Your task to perform on an android device: Check the news Image 0: 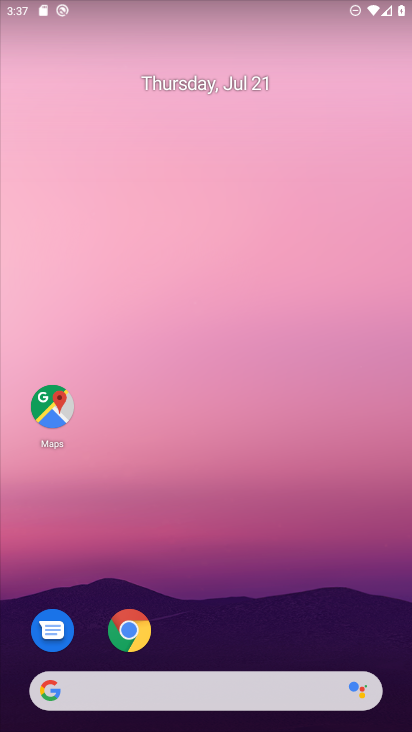
Step 0: click (219, 682)
Your task to perform on an android device: Check the news Image 1: 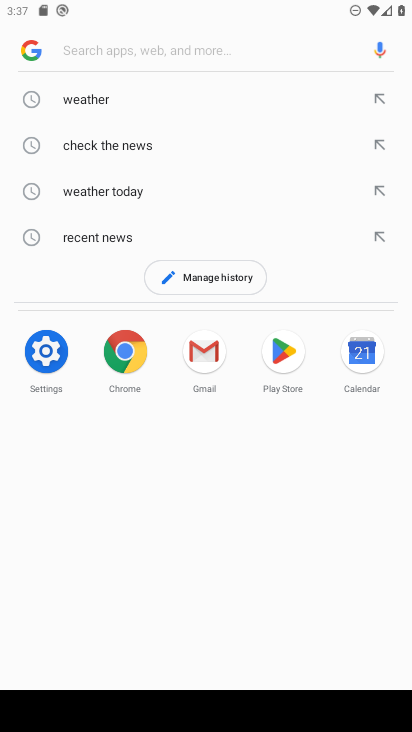
Step 1: click (104, 234)
Your task to perform on an android device: Check the news Image 2: 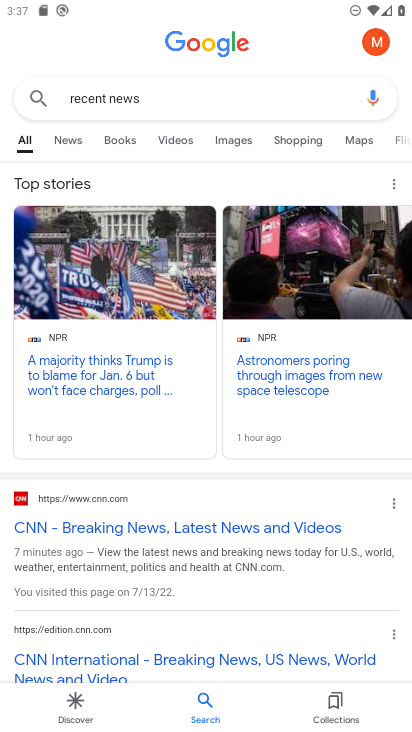
Step 2: task complete